Your task to perform on an android device: show emergency info Image 0: 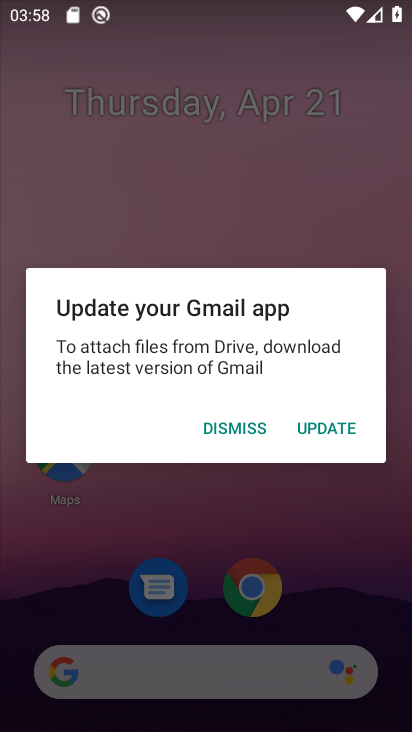
Step 0: press home button
Your task to perform on an android device: show emergency info Image 1: 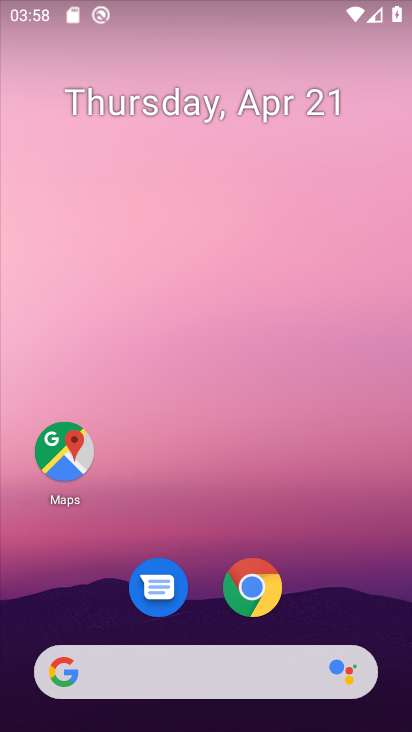
Step 1: drag from (375, 587) to (369, 155)
Your task to perform on an android device: show emergency info Image 2: 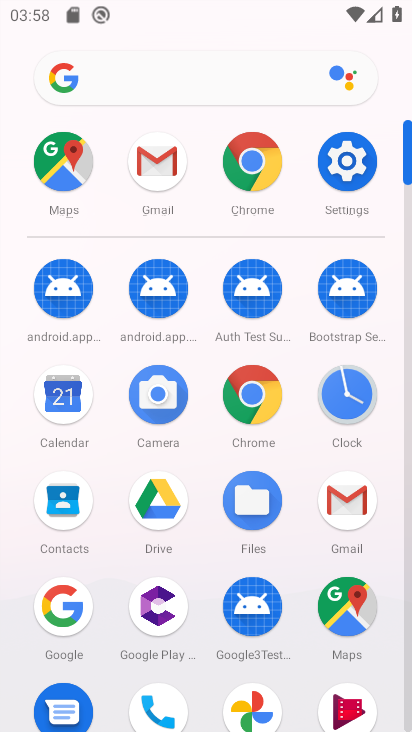
Step 2: click (347, 170)
Your task to perform on an android device: show emergency info Image 3: 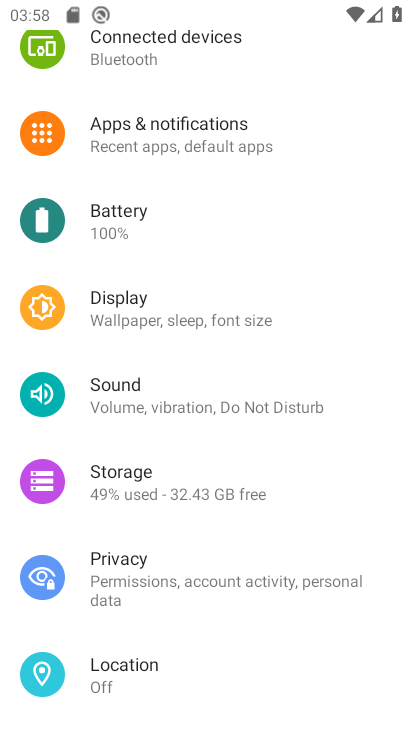
Step 3: drag from (336, 512) to (332, 351)
Your task to perform on an android device: show emergency info Image 4: 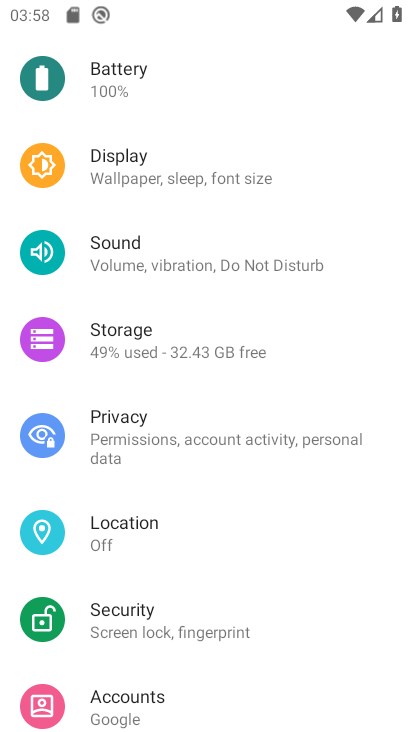
Step 4: drag from (317, 598) to (327, 402)
Your task to perform on an android device: show emergency info Image 5: 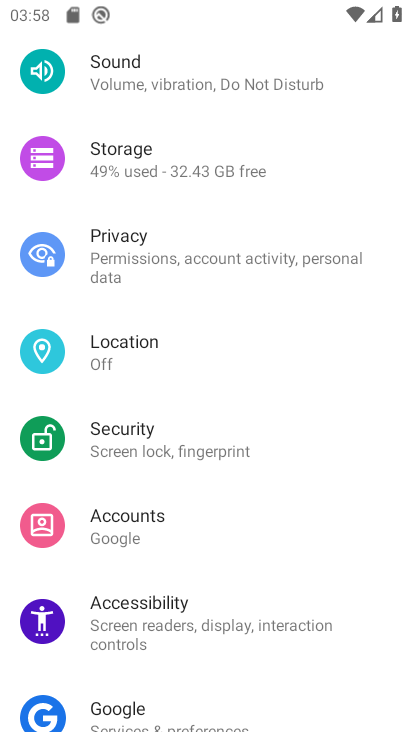
Step 5: drag from (339, 653) to (347, 422)
Your task to perform on an android device: show emergency info Image 6: 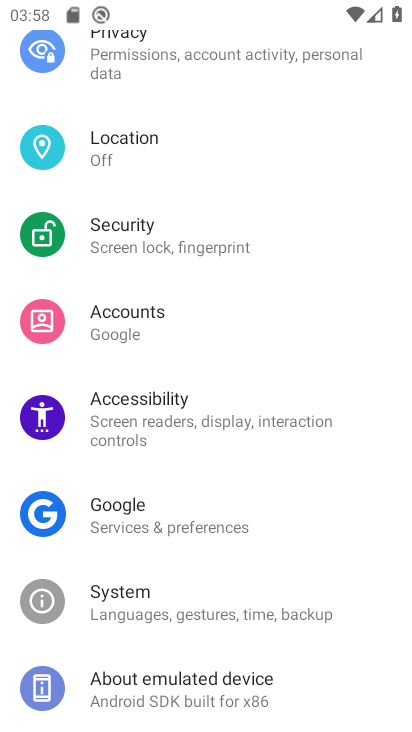
Step 6: drag from (341, 662) to (356, 462)
Your task to perform on an android device: show emergency info Image 7: 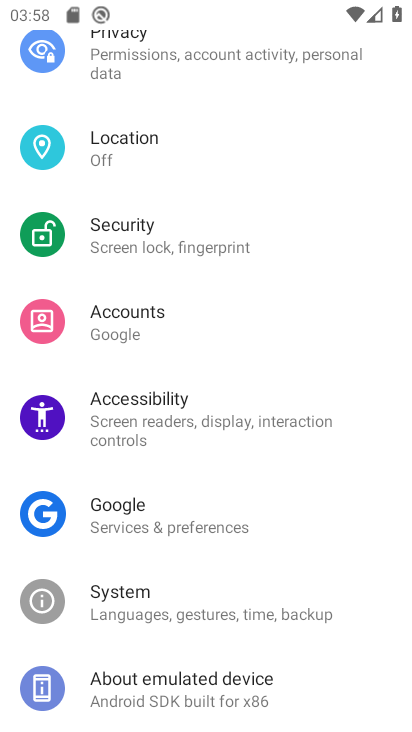
Step 7: drag from (365, 356) to (360, 524)
Your task to perform on an android device: show emergency info Image 8: 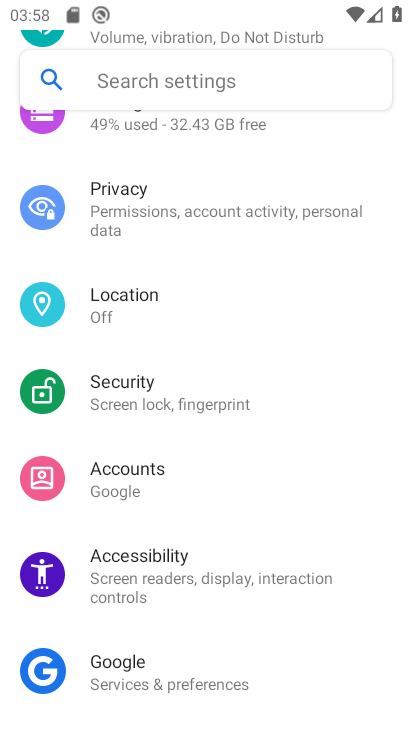
Step 8: drag from (360, 348) to (364, 506)
Your task to perform on an android device: show emergency info Image 9: 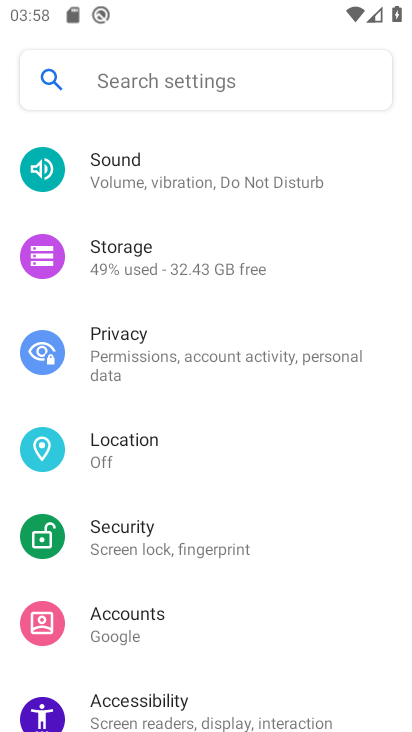
Step 9: drag from (379, 320) to (376, 469)
Your task to perform on an android device: show emergency info Image 10: 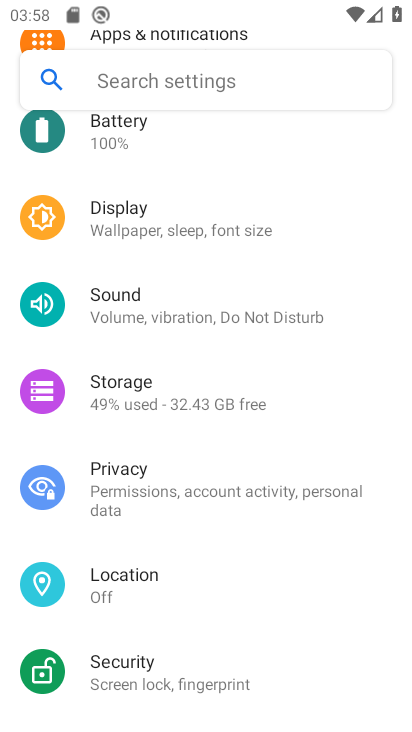
Step 10: drag from (371, 334) to (366, 463)
Your task to perform on an android device: show emergency info Image 11: 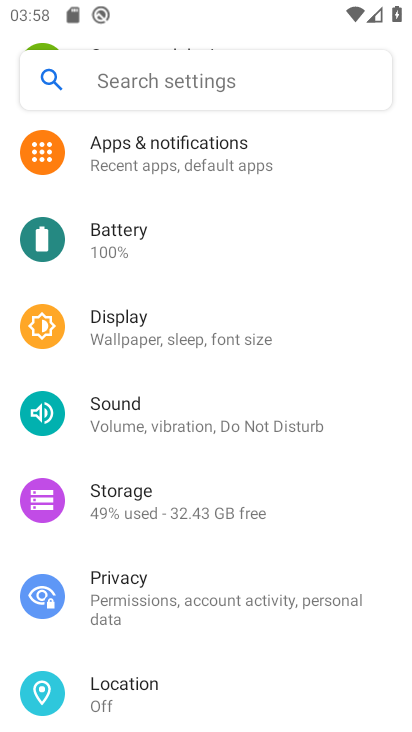
Step 11: drag from (357, 319) to (361, 453)
Your task to perform on an android device: show emergency info Image 12: 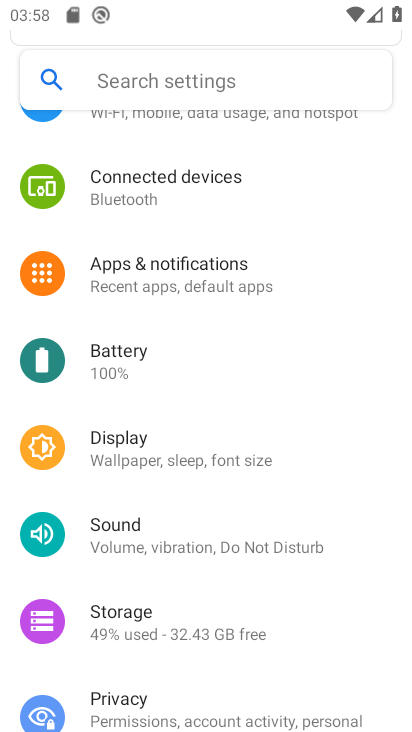
Step 12: drag from (356, 609) to (365, 427)
Your task to perform on an android device: show emergency info Image 13: 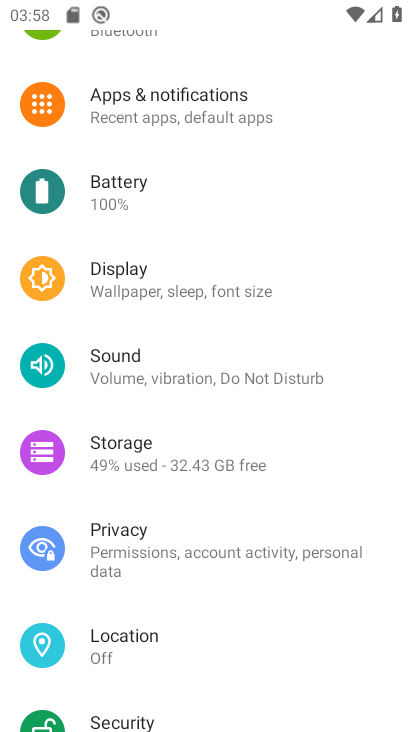
Step 13: drag from (355, 648) to (362, 440)
Your task to perform on an android device: show emergency info Image 14: 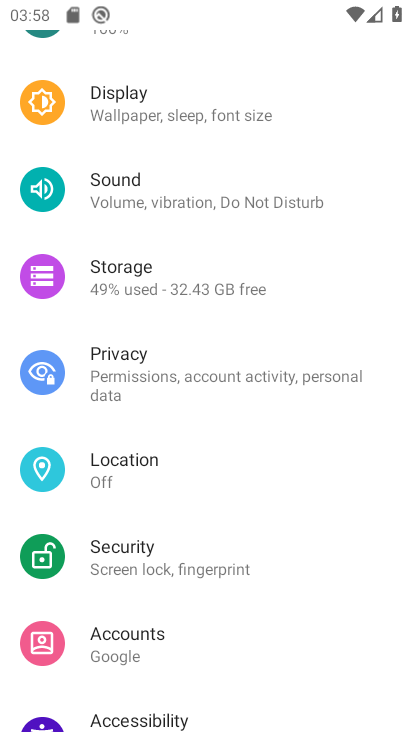
Step 14: drag from (329, 645) to (360, 231)
Your task to perform on an android device: show emergency info Image 15: 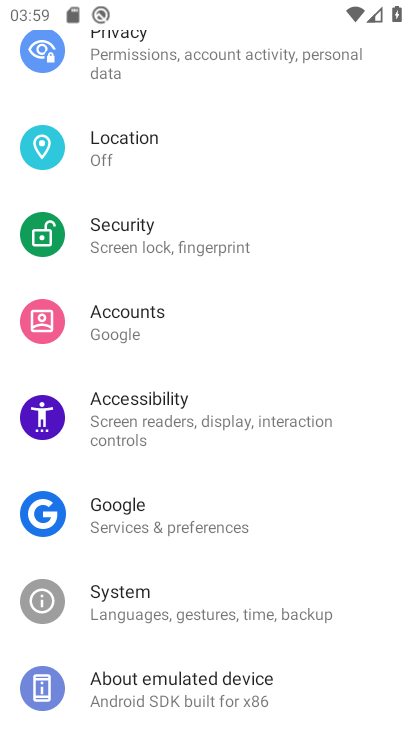
Step 15: click (242, 682)
Your task to perform on an android device: show emergency info Image 16: 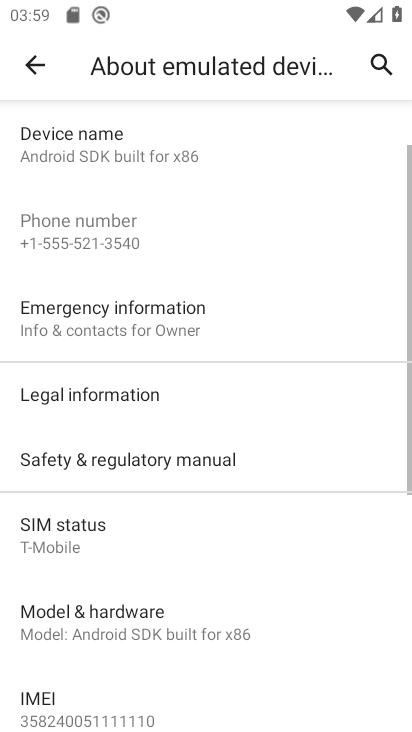
Step 16: click (228, 316)
Your task to perform on an android device: show emergency info Image 17: 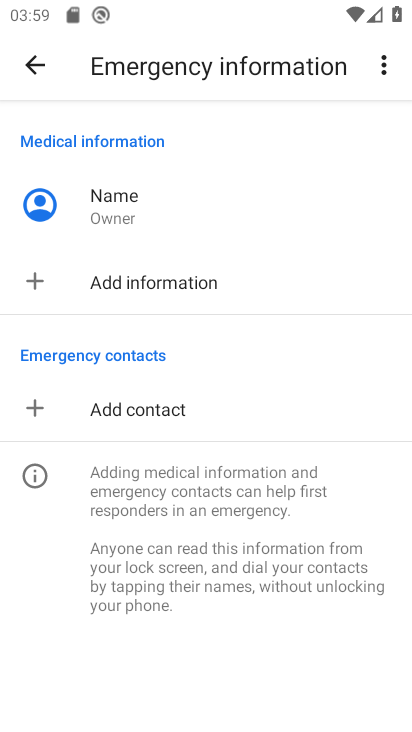
Step 17: task complete